Your task to perform on an android device: turn off wifi Image 0: 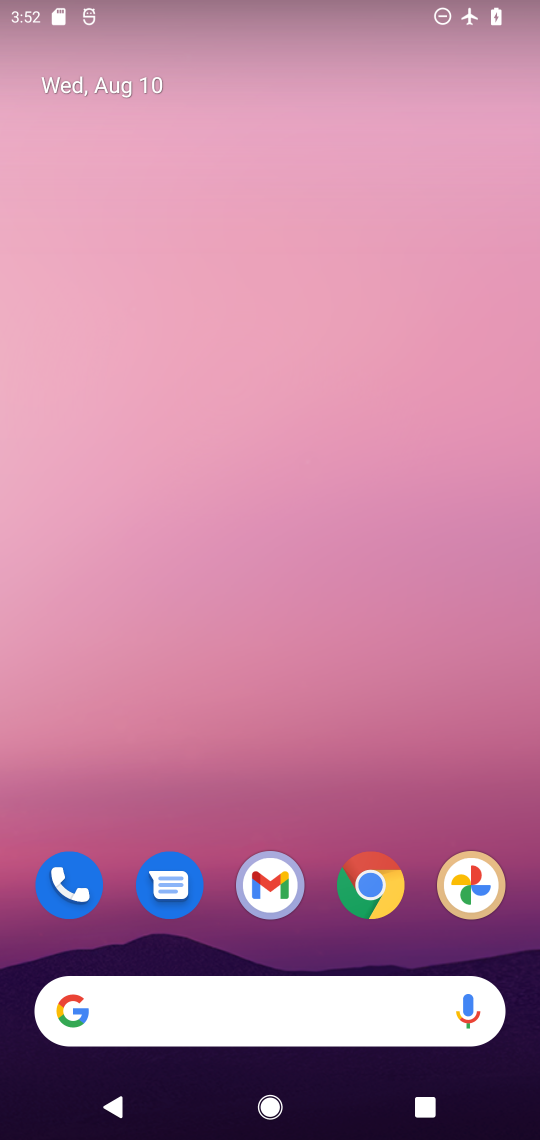
Step 0: drag from (228, 574) to (36, 4)
Your task to perform on an android device: turn off wifi Image 1: 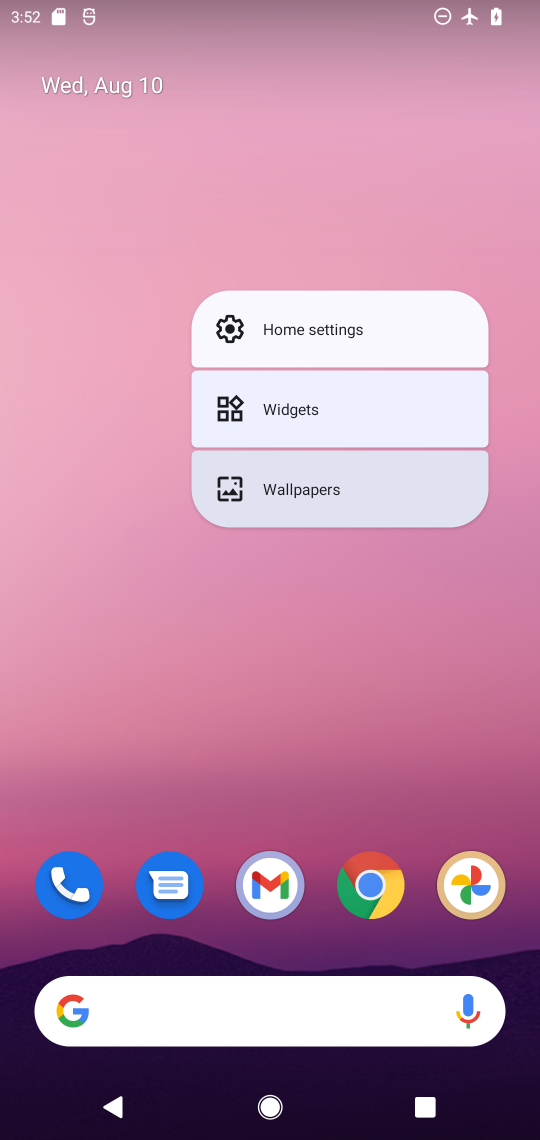
Step 1: click (330, 597)
Your task to perform on an android device: turn off wifi Image 2: 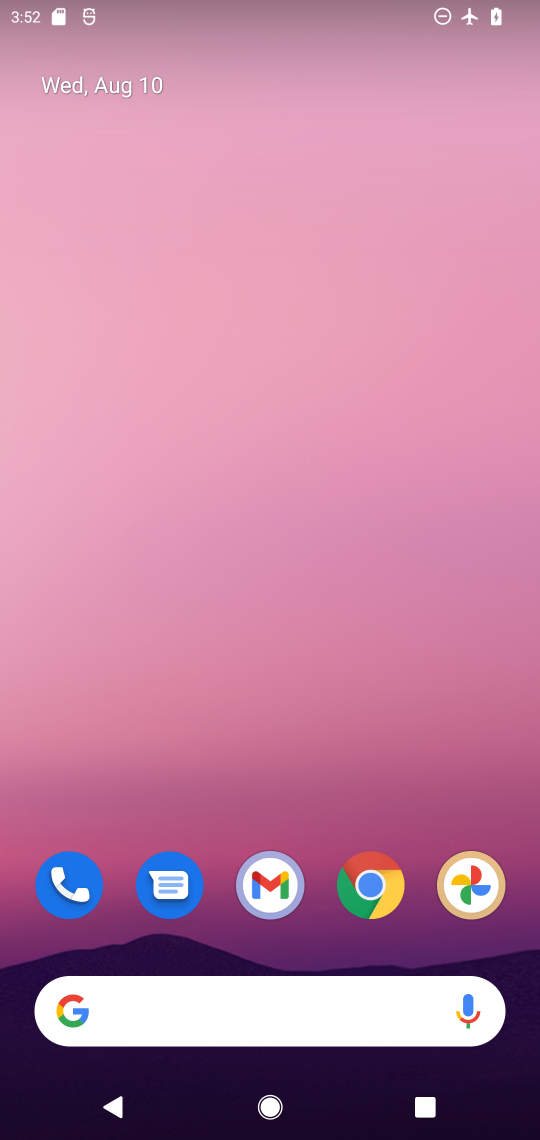
Step 2: drag from (312, 946) to (270, 130)
Your task to perform on an android device: turn off wifi Image 3: 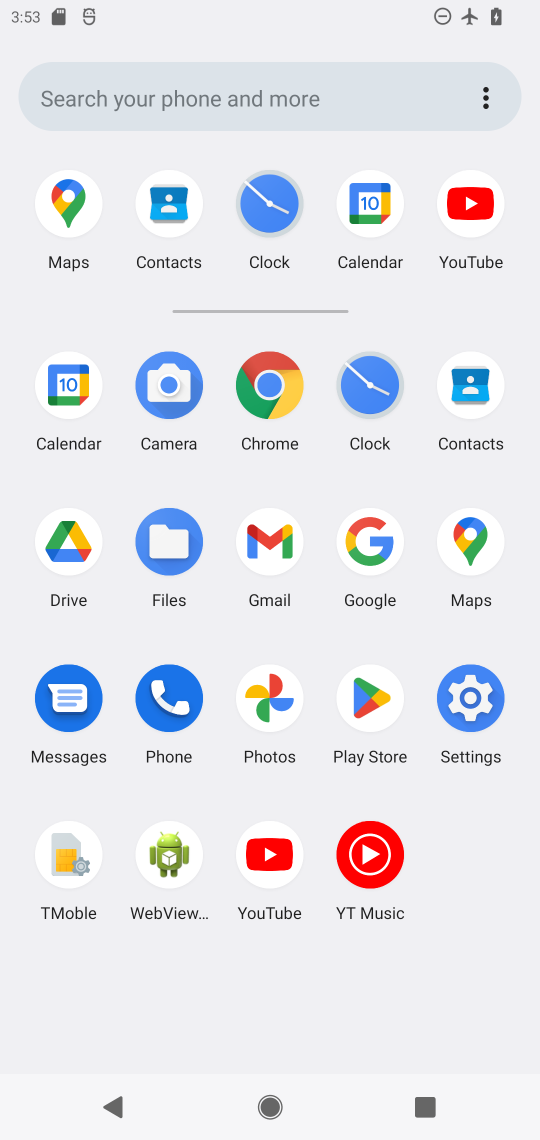
Step 3: click (468, 715)
Your task to perform on an android device: turn off wifi Image 4: 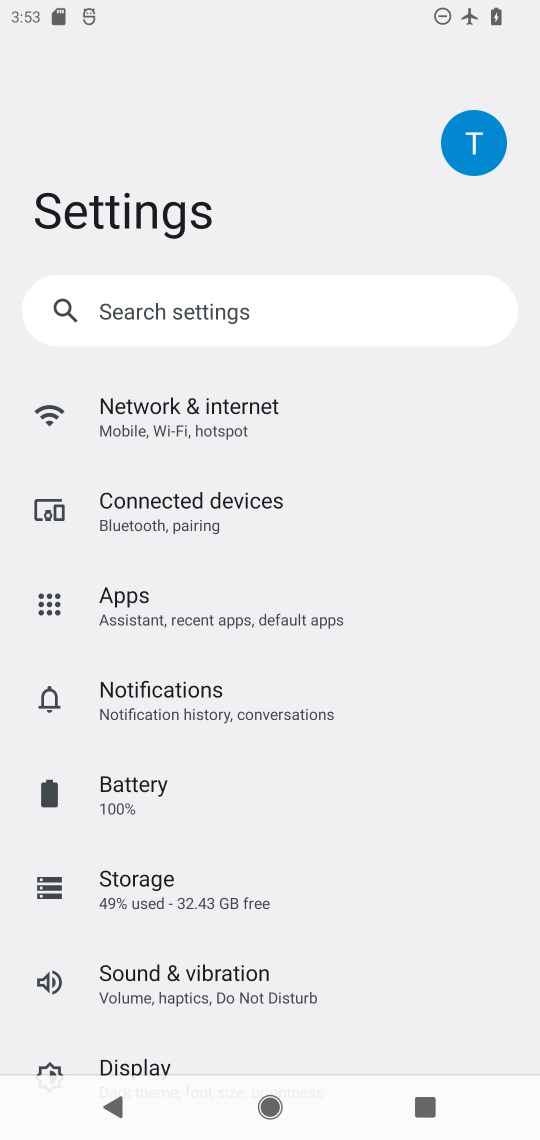
Step 4: click (149, 418)
Your task to perform on an android device: turn off wifi Image 5: 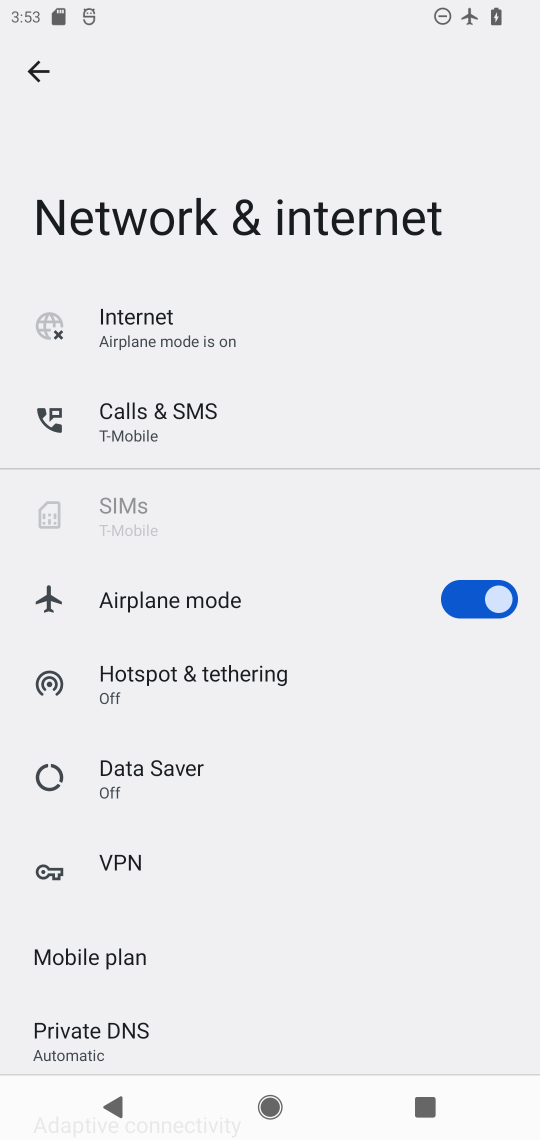
Step 5: click (125, 321)
Your task to perform on an android device: turn off wifi Image 6: 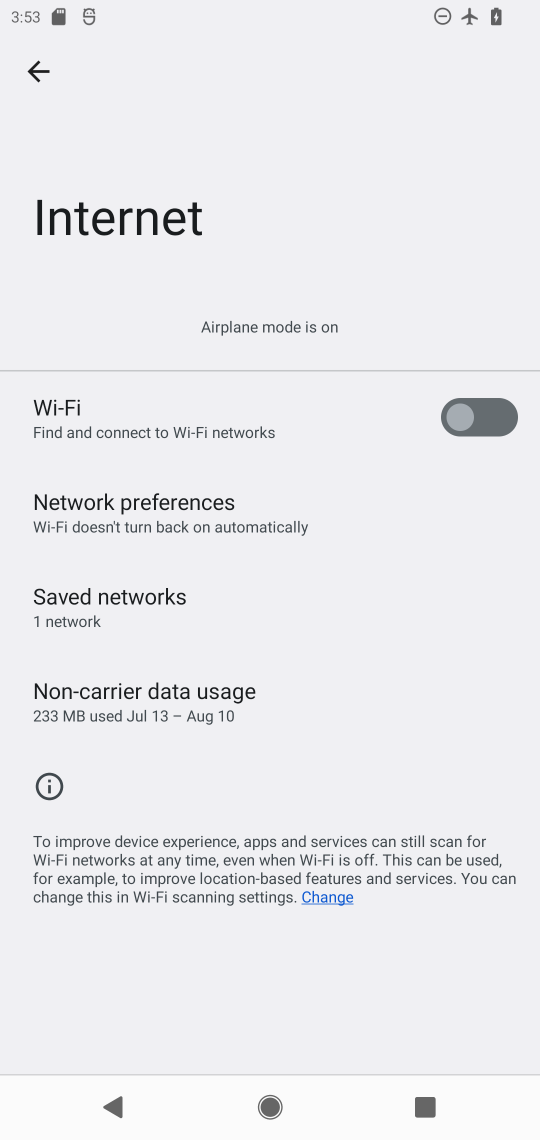
Step 6: task complete